Your task to perform on an android device: refresh tabs in the chrome app Image 0: 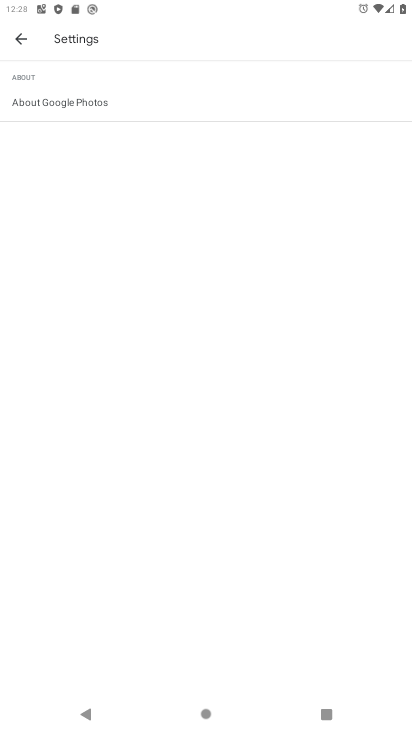
Step 0: press home button
Your task to perform on an android device: refresh tabs in the chrome app Image 1: 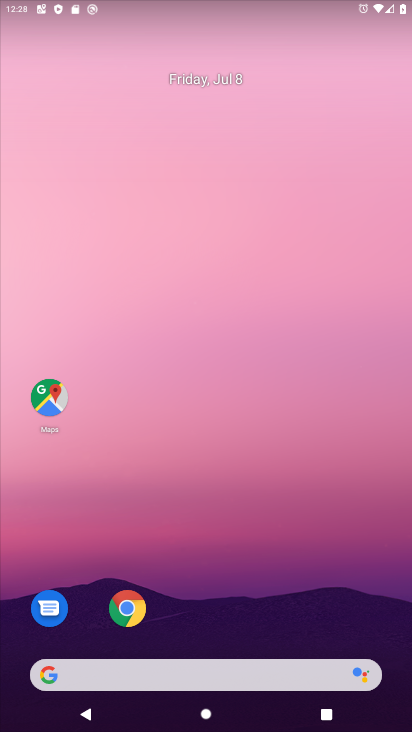
Step 1: click (94, 672)
Your task to perform on an android device: refresh tabs in the chrome app Image 2: 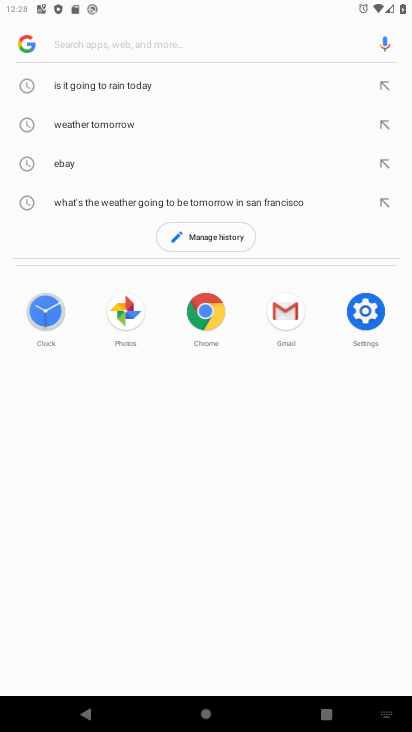
Step 2: press home button
Your task to perform on an android device: refresh tabs in the chrome app Image 3: 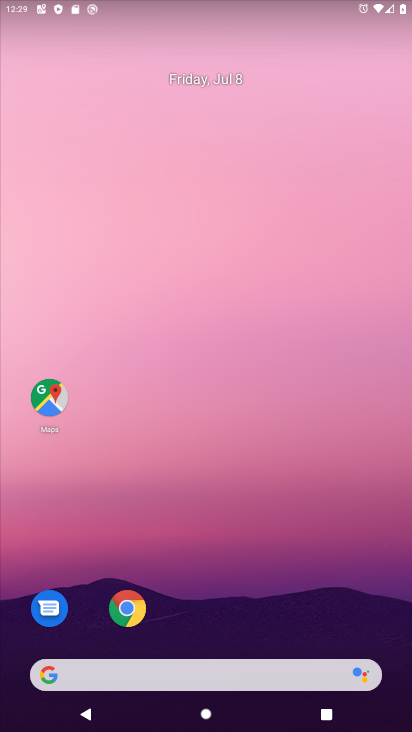
Step 3: click (125, 602)
Your task to perform on an android device: refresh tabs in the chrome app Image 4: 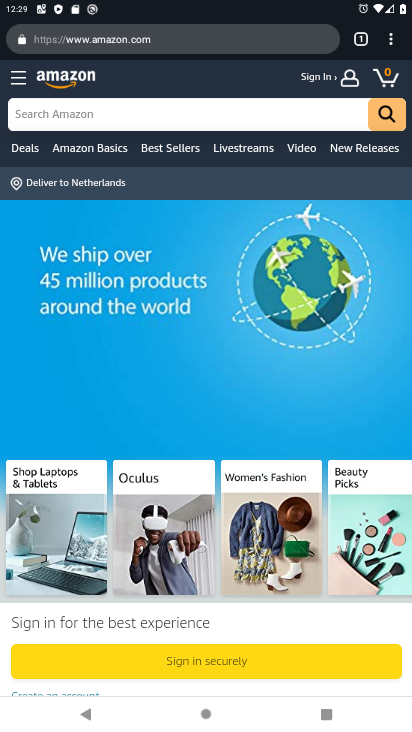
Step 4: click (393, 45)
Your task to perform on an android device: refresh tabs in the chrome app Image 5: 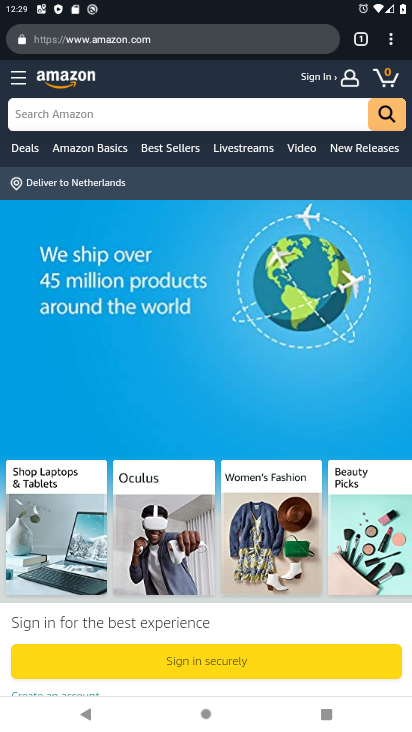
Step 5: click (386, 38)
Your task to perform on an android device: refresh tabs in the chrome app Image 6: 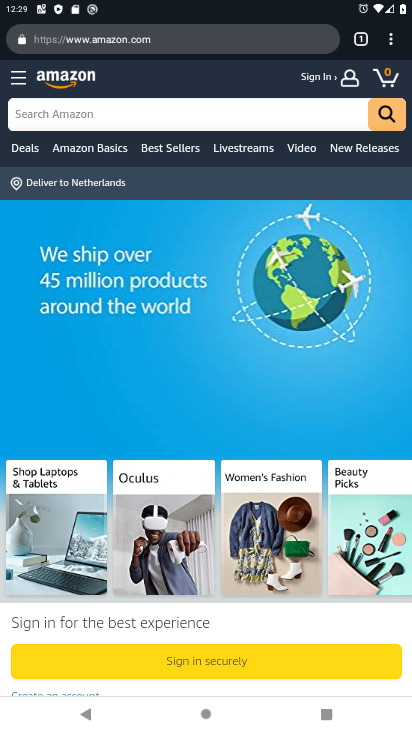
Step 6: click (394, 33)
Your task to perform on an android device: refresh tabs in the chrome app Image 7: 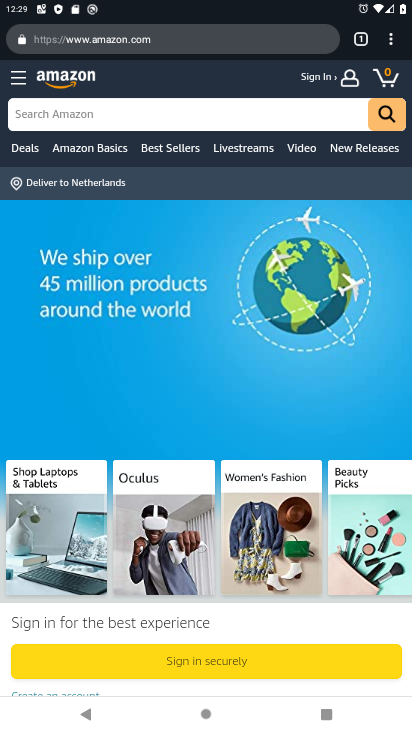
Step 7: click (390, 45)
Your task to perform on an android device: refresh tabs in the chrome app Image 8: 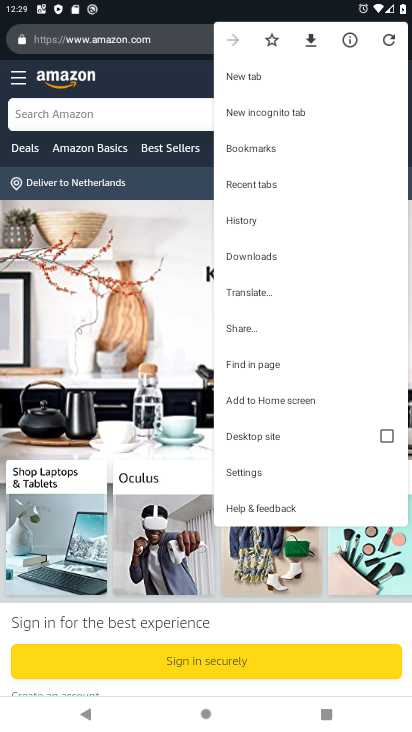
Step 8: click (389, 36)
Your task to perform on an android device: refresh tabs in the chrome app Image 9: 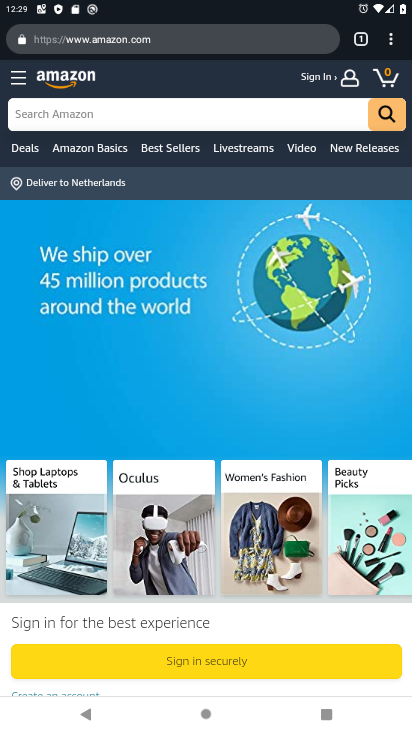
Step 9: task complete